Your task to perform on an android device: star an email in the gmail app Image 0: 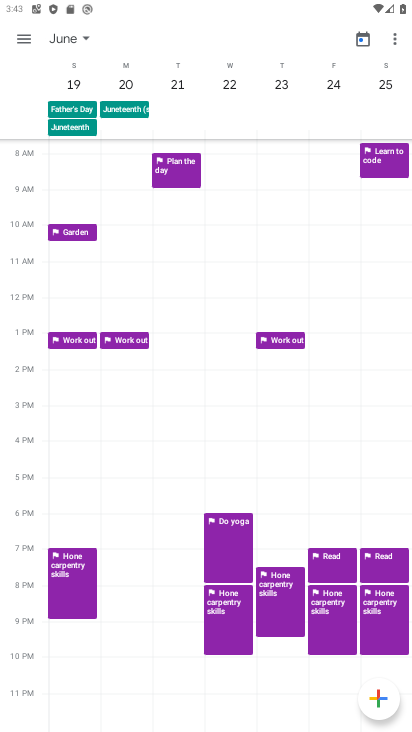
Step 0: press home button
Your task to perform on an android device: star an email in the gmail app Image 1: 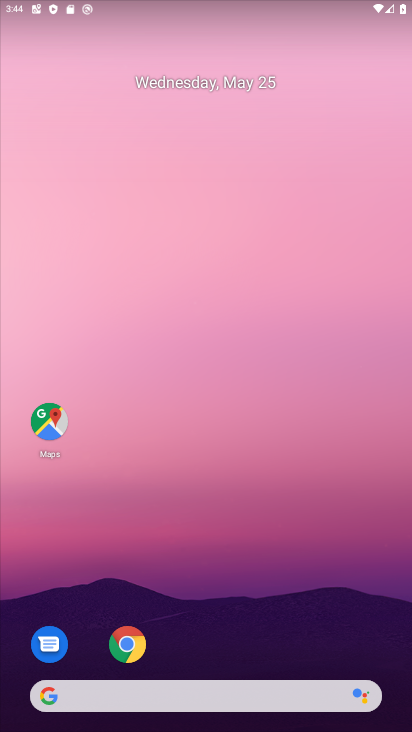
Step 1: drag from (279, 664) to (288, 0)
Your task to perform on an android device: star an email in the gmail app Image 2: 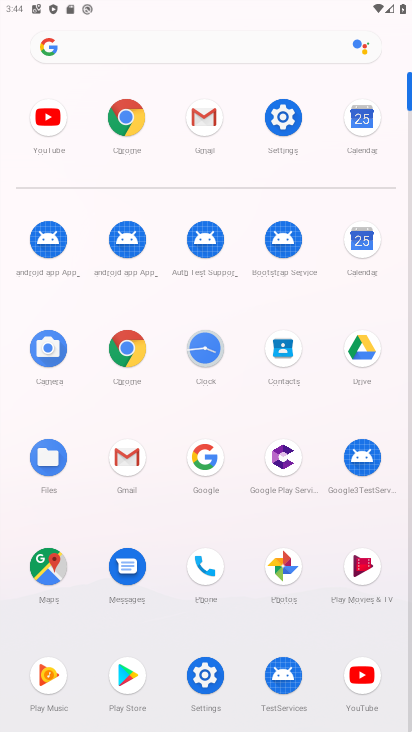
Step 2: click (204, 124)
Your task to perform on an android device: star an email in the gmail app Image 3: 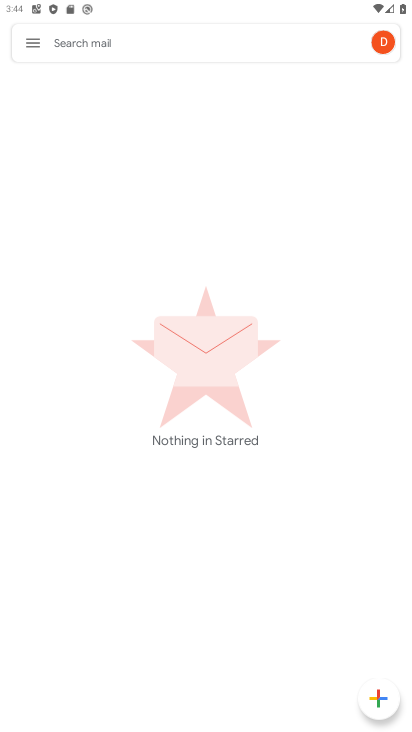
Step 3: click (27, 41)
Your task to perform on an android device: star an email in the gmail app Image 4: 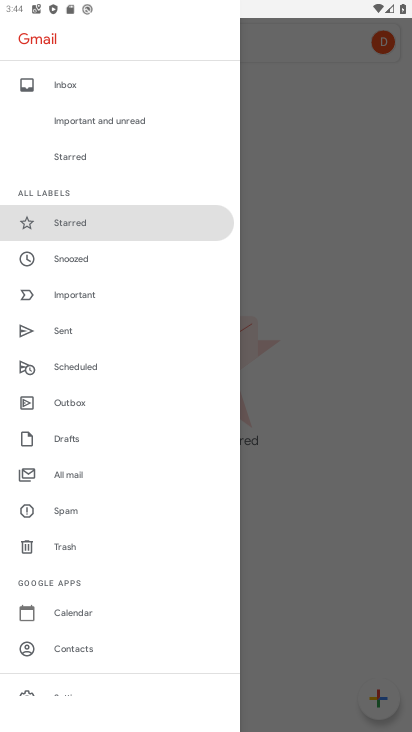
Step 4: click (68, 475)
Your task to perform on an android device: star an email in the gmail app Image 5: 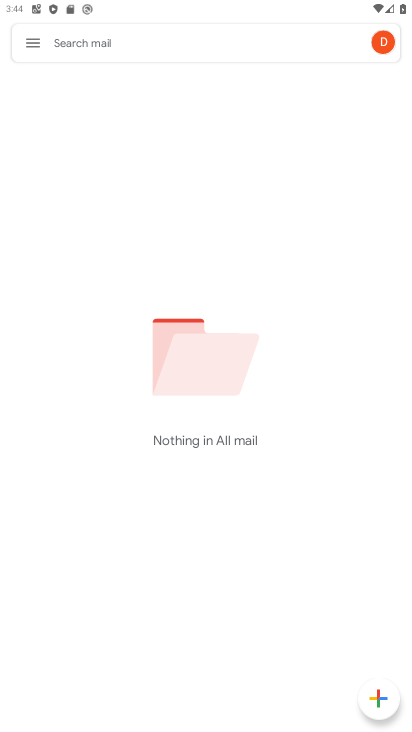
Step 5: task complete